Your task to perform on an android device: uninstall "Flipkart Online Shopping App" Image 0: 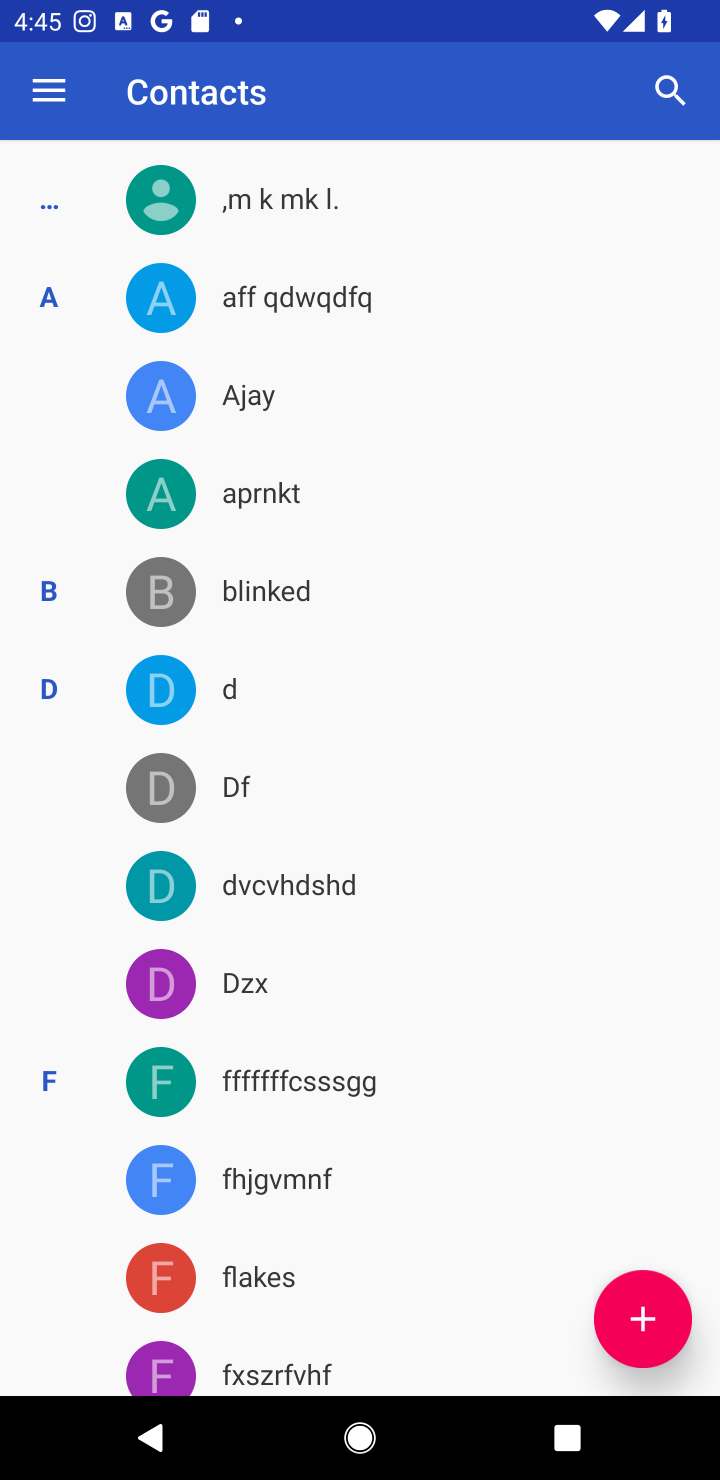
Step 0: press home button
Your task to perform on an android device: uninstall "Flipkart Online Shopping App" Image 1: 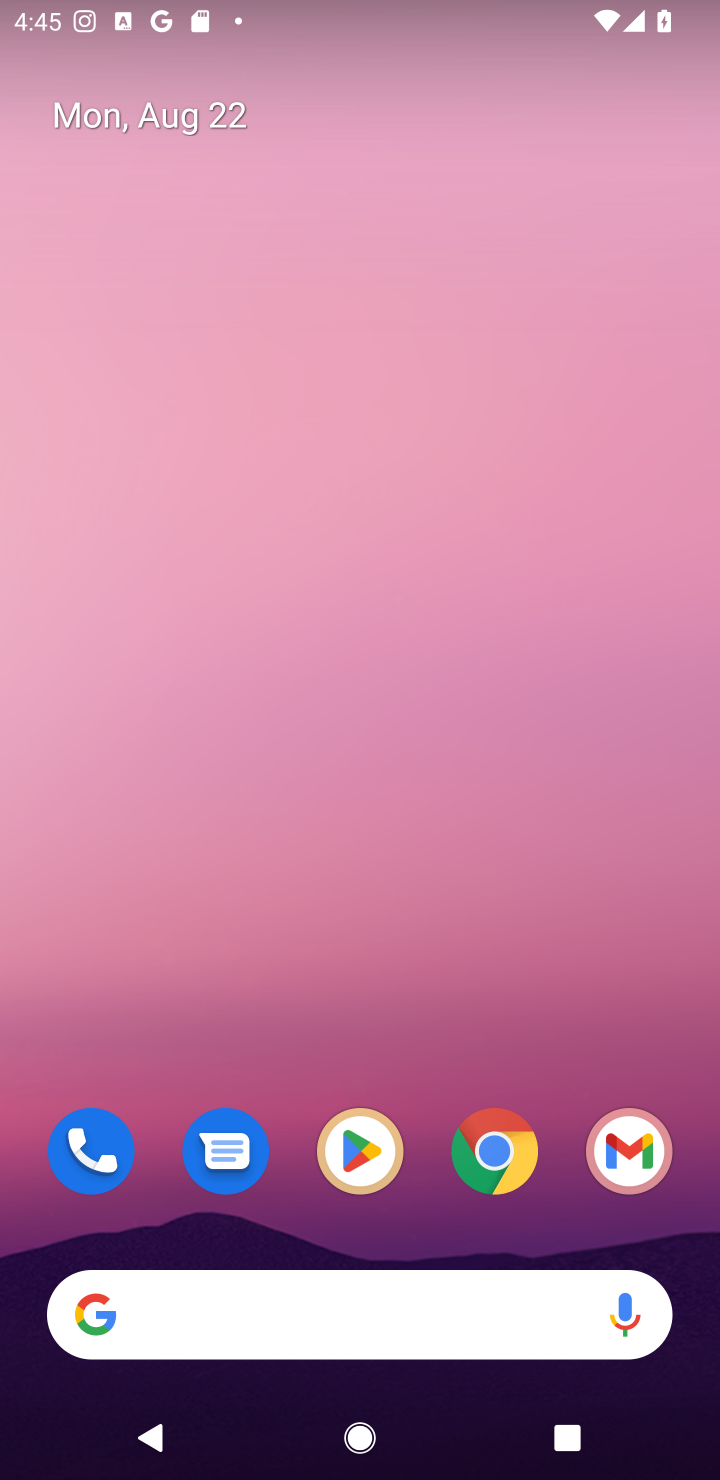
Step 1: click (357, 1151)
Your task to perform on an android device: uninstall "Flipkart Online Shopping App" Image 2: 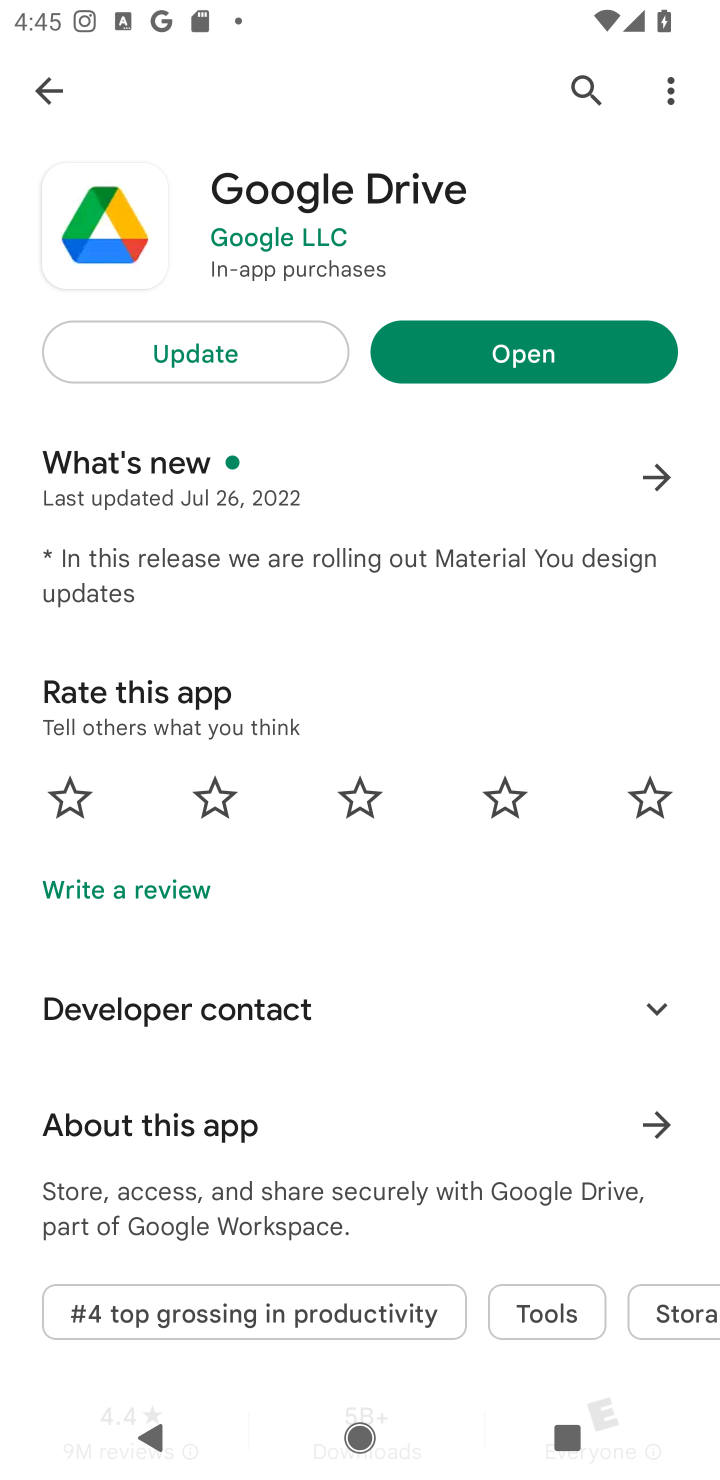
Step 2: click (576, 78)
Your task to perform on an android device: uninstall "Flipkart Online Shopping App" Image 3: 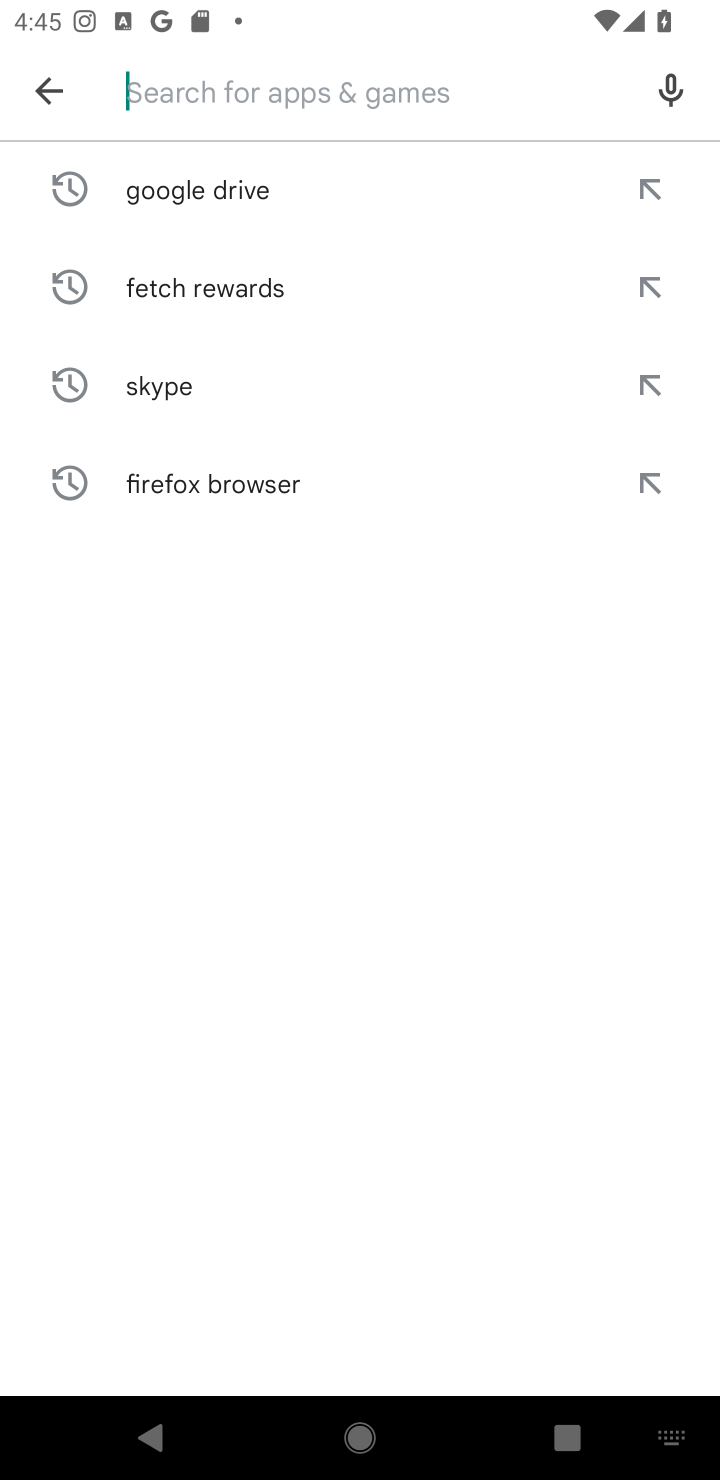
Step 3: type "Flipkart Online Shopping App"
Your task to perform on an android device: uninstall "Flipkart Online Shopping App" Image 4: 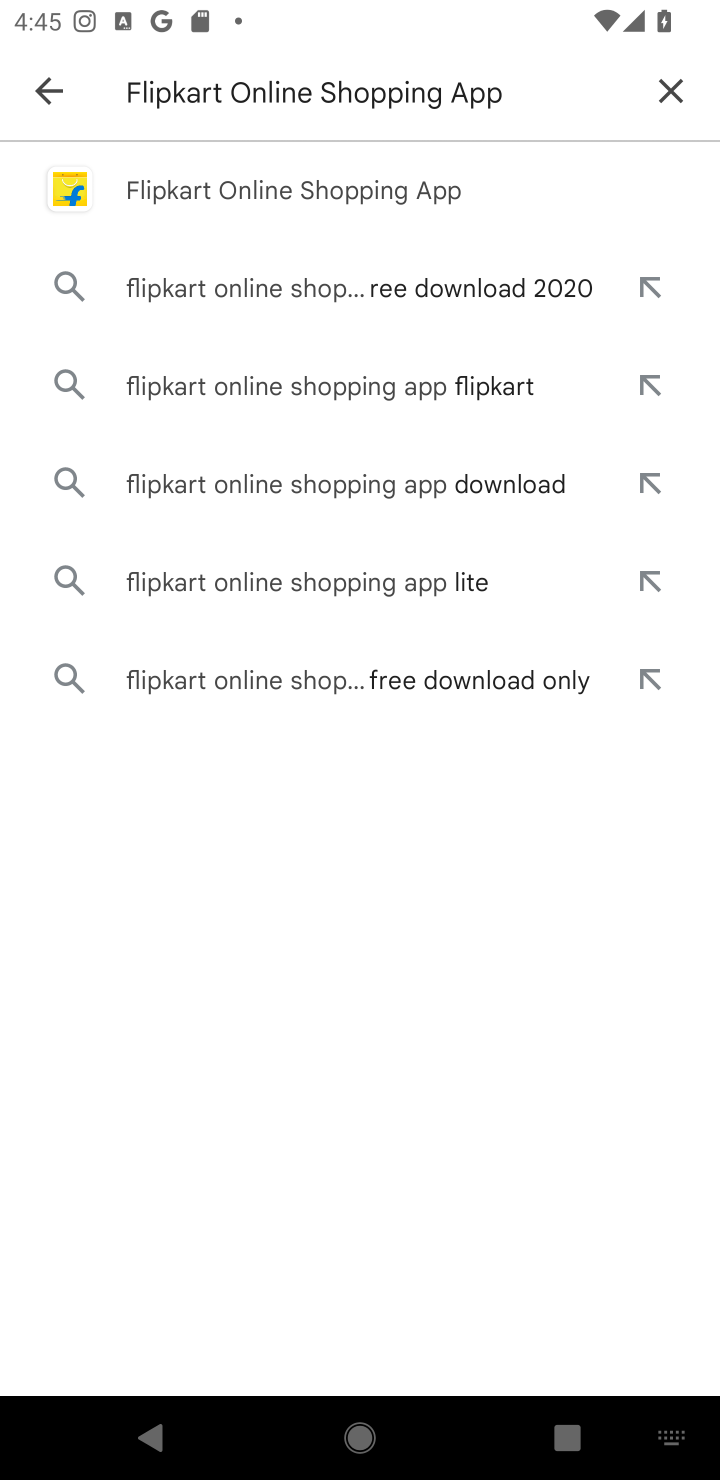
Step 4: click (403, 176)
Your task to perform on an android device: uninstall "Flipkart Online Shopping App" Image 5: 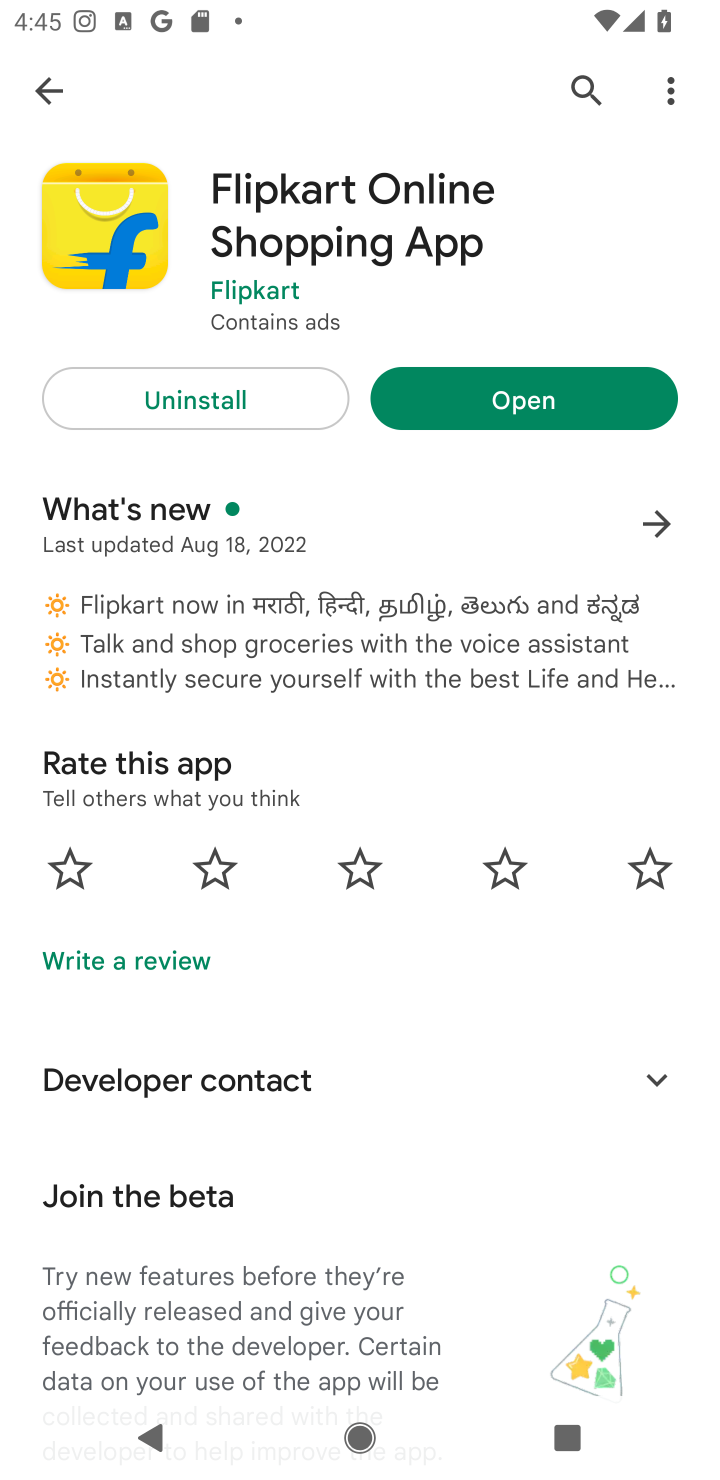
Step 5: click (243, 392)
Your task to perform on an android device: uninstall "Flipkart Online Shopping App" Image 6: 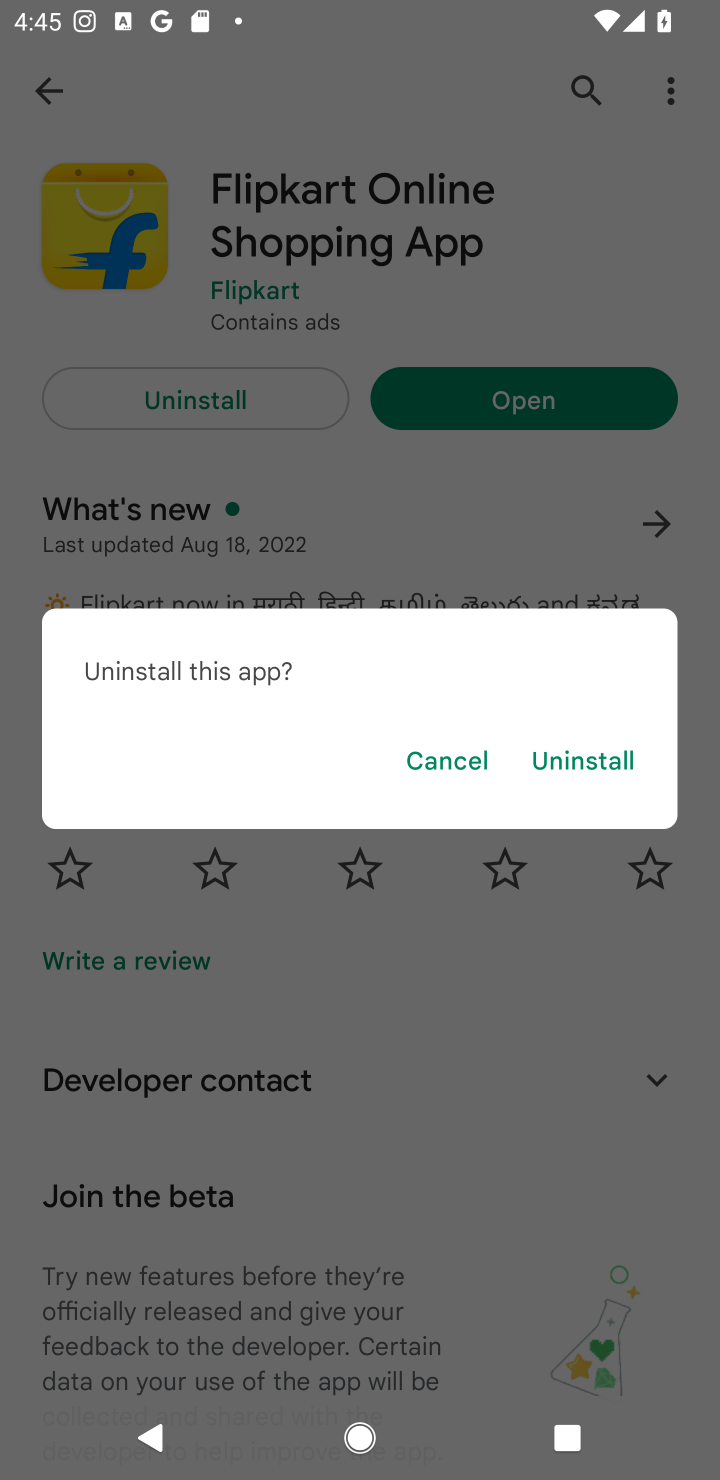
Step 6: click (588, 754)
Your task to perform on an android device: uninstall "Flipkart Online Shopping App" Image 7: 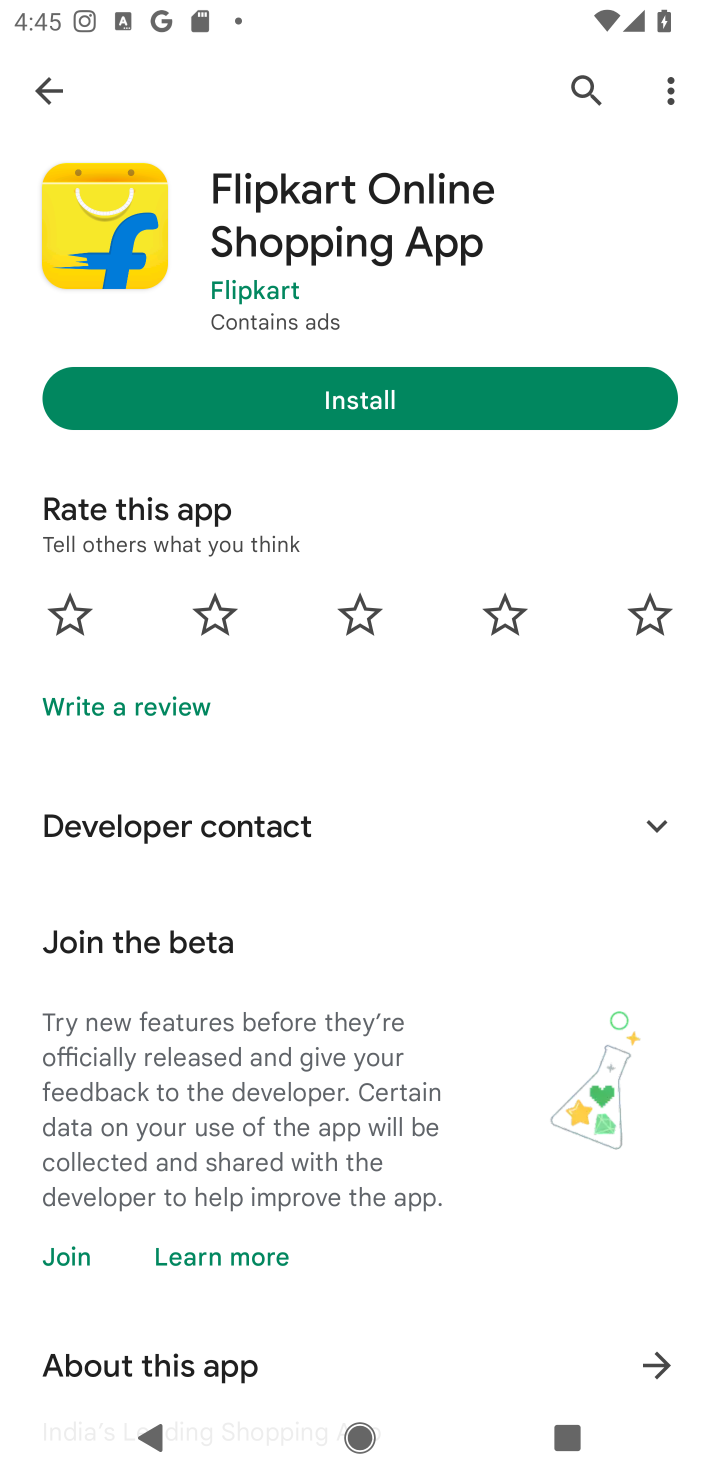
Step 7: task complete